Your task to perform on an android device: Open network settings Image 0: 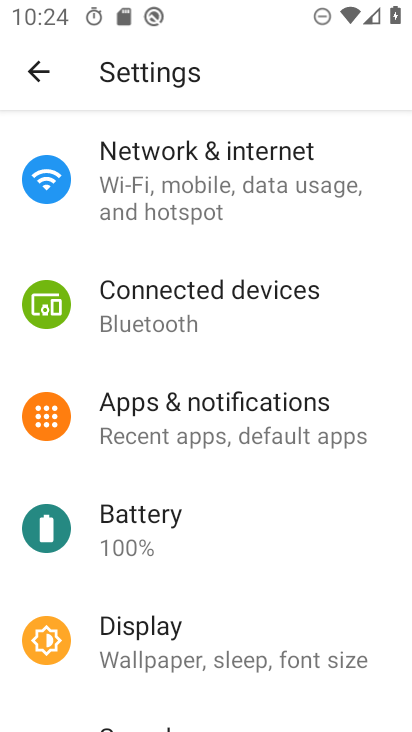
Step 0: click (156, 197)
Your task to perform on an android device: Open network settings Image 1: 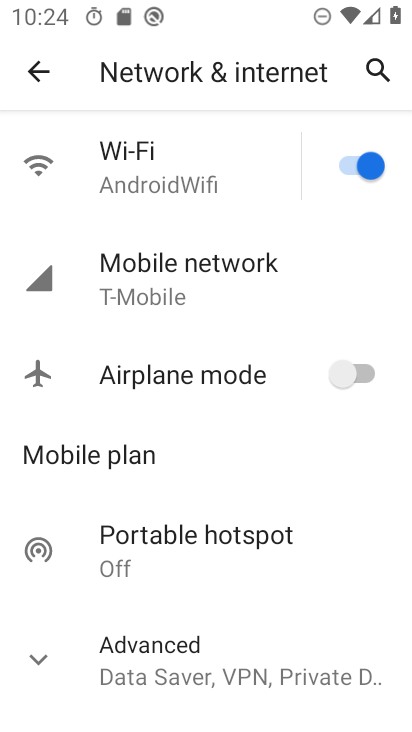
Step 1: click (152, 185)
Your task to perform on an android device: Open network settings Image 2: 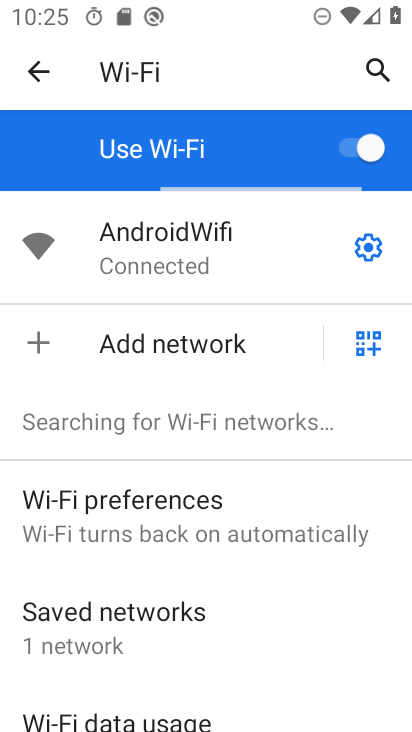
Step 2: task complete